Your task to perform on an android device: What is the recent news? Image 0: 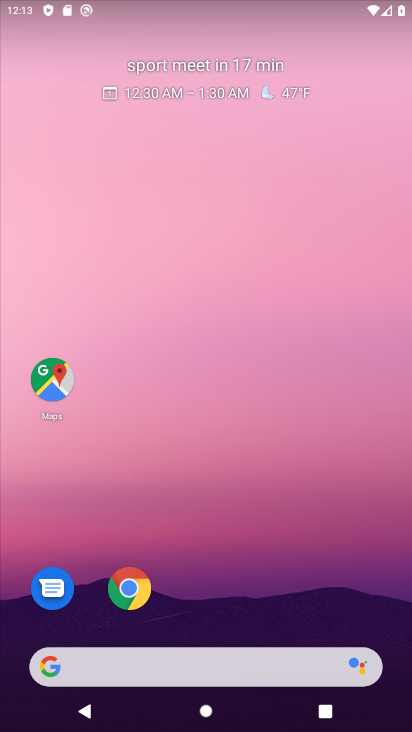
Step 0: click (203, 660)
Your task to perform on an android device: What is the recent news? Image 1: 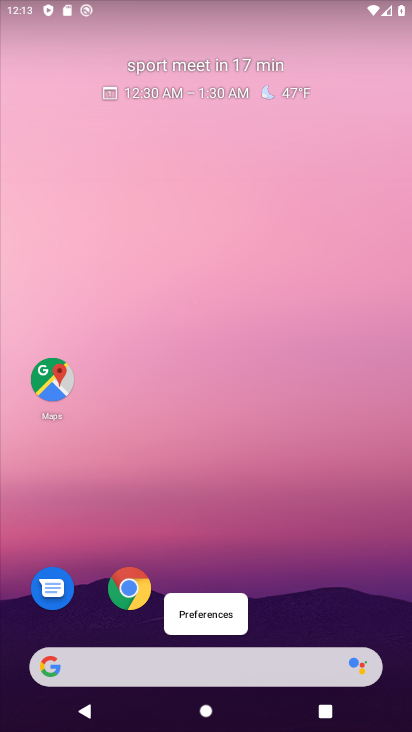
Step 1: click (187, 675)
Your task to perform on an android device: What is the recent news? Image 2: 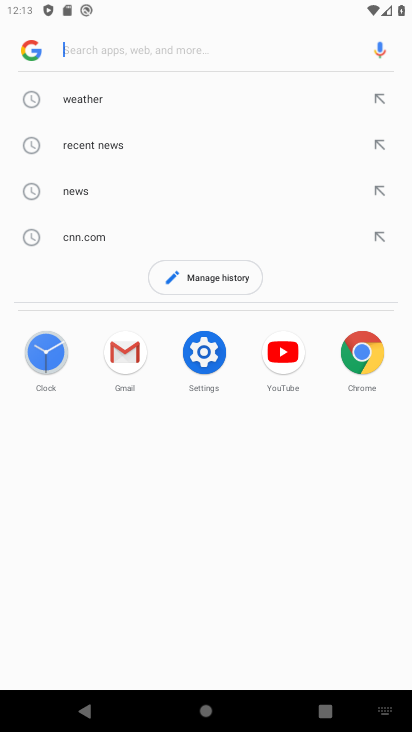
Step 2: click (70, 139)
Your task to perform on an android device: What is the recent news? Image 3: 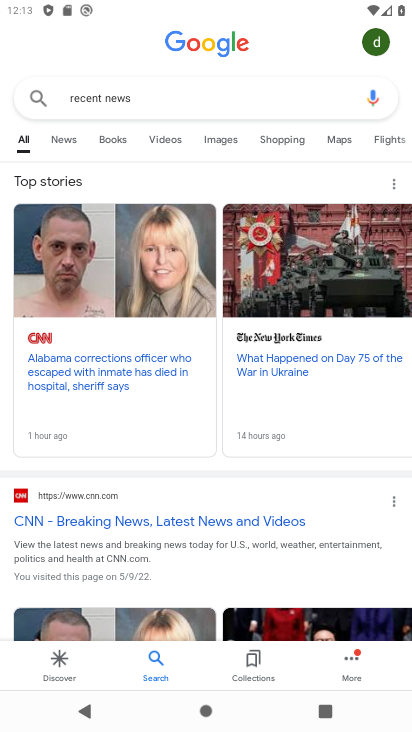
Step 3: click (62, 128)
Your task to perform on an android device: What is the recent news? Image 4: 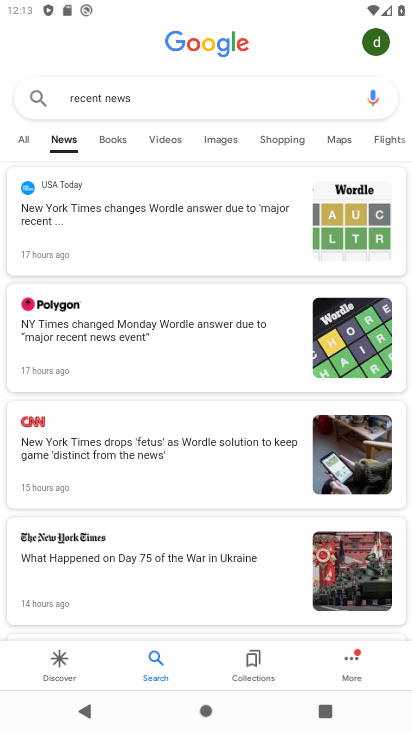
Step 4: task complete